Your task to perform on an android device: turn on javascript in the chrome app Image 0: 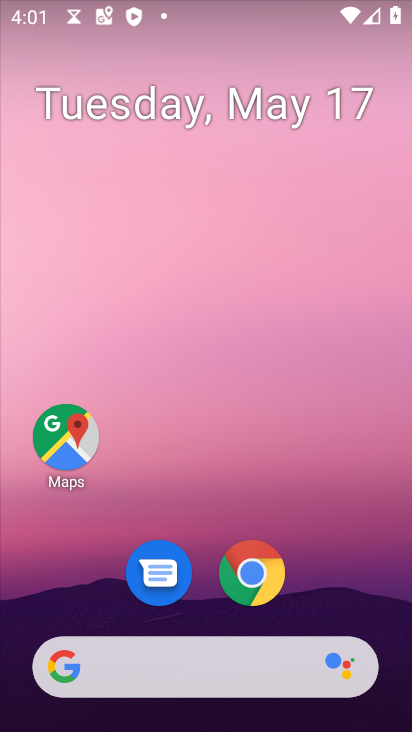
Step 0: click (271, 573)
Your task to perform on an android device: turn on javascript in the chrome app Image 1: 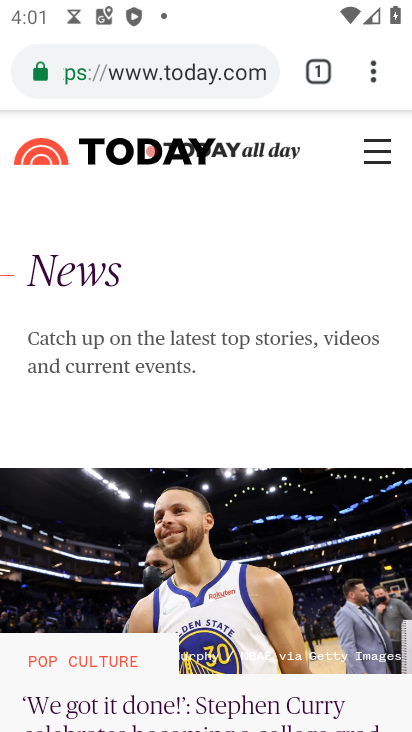
Step 1: click (379, 87)
Your task to perform on an android device: turn on javascript in the chrome app Image 2: 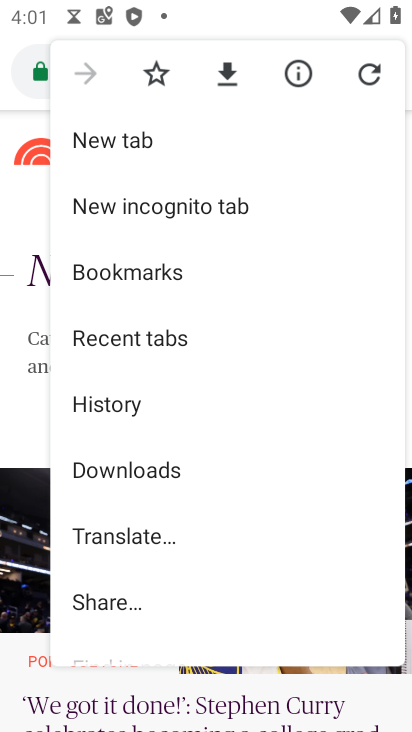
Step 2: drag from (242, 646) to (221, 239)
Your task to perform on an android device: turn on javascript in the chrome app Image 3: 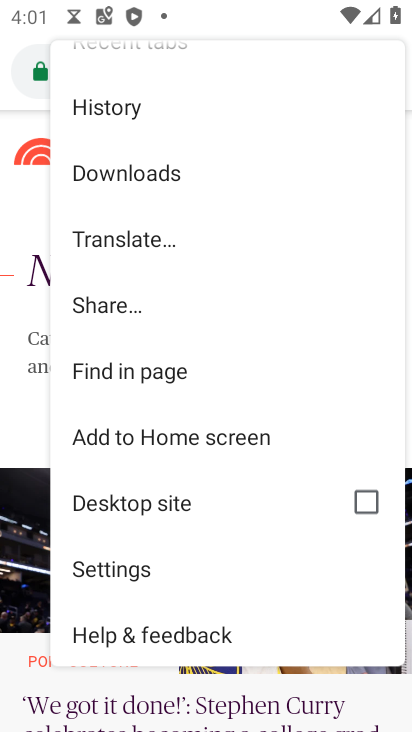
Step 3: click (202, 543)
Your task to perform on an android device: turn on javascript in the chrome app Image 4: 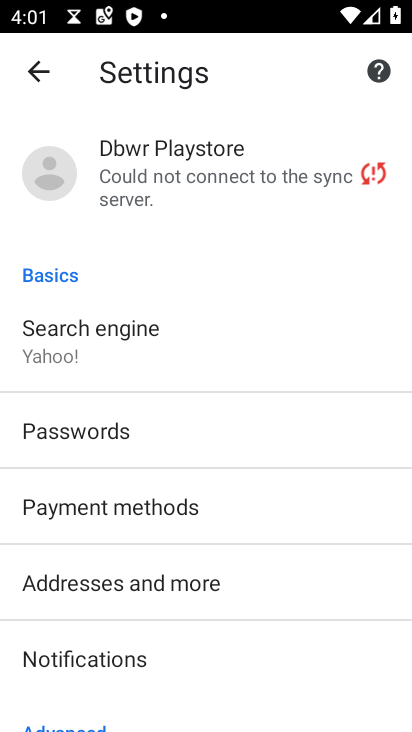
Step 4: drag from (244, 681) to (222, 350)
Your task to perform on an android device: turn on javascript in the chrome app Image 5: 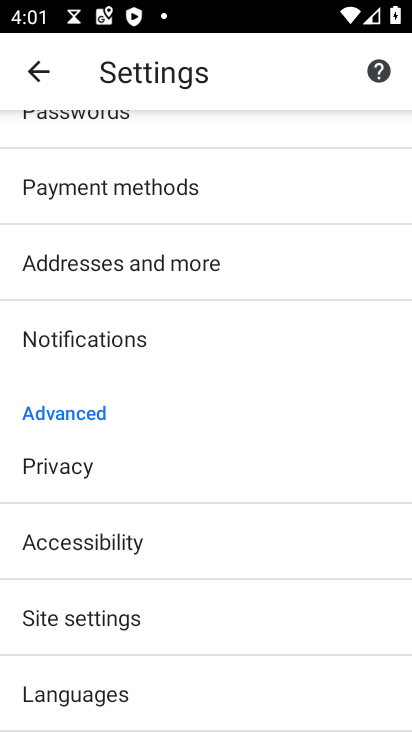
Step 5: click (250, 625)
Your task to perform on an android device: turn on javascript in the chrome app Image 6: 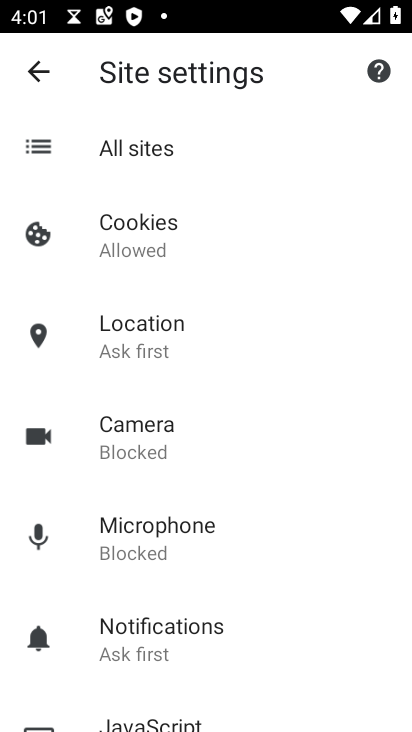
Step 6: drag from (247, 671) to (238, 276)
Your task to perform on an android device: turn on javascript in the chrome app Image 7: 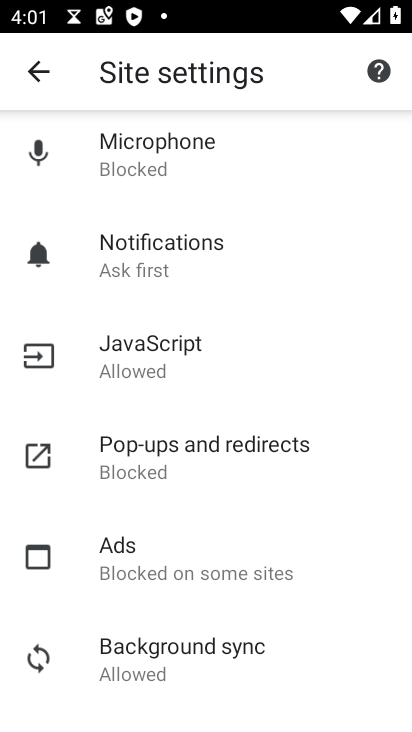
Step 7: click (245, 356)
Your task to perform on an android device: turn on javascript in the chrome app Image 8: 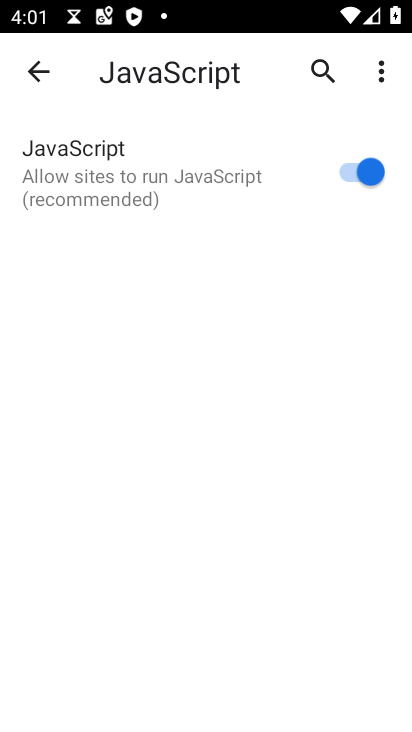
Step 8: task complete